Your task to perform on an android device: Open Reddit.com Image 0: 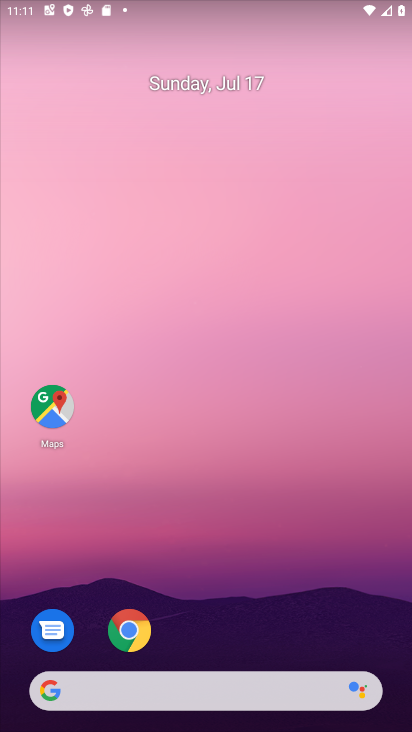
Step 0: click (149, 634)
Your task to perform on an android device: Open Reddit.com Image 1: 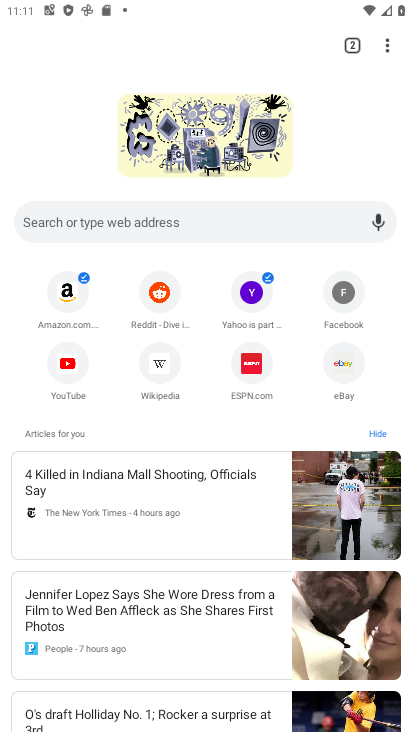
Step 1: click (102, 211)
Your task to perform on an android device: Open Reddit.com Image 2: 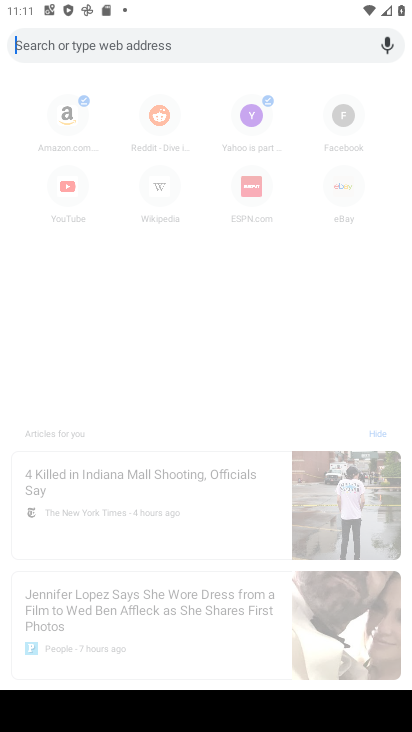
Step 2: type "reddit.com"
Your task to perform on an android device: Open Reddit.com Image 3: 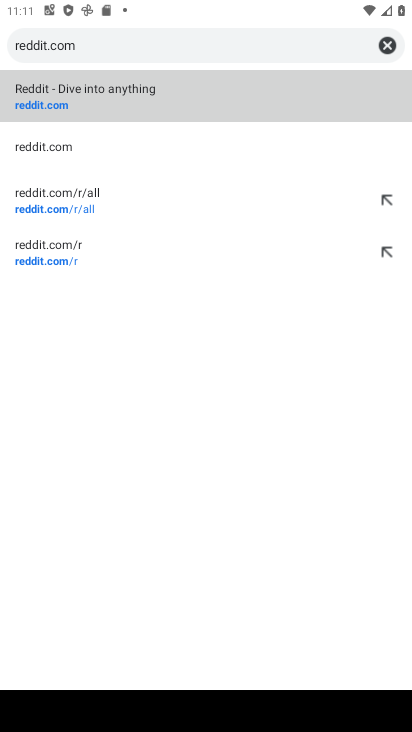
Step 3: click (117, 109)
Your task to perform on an android device: Open Reddit.com Image 4: 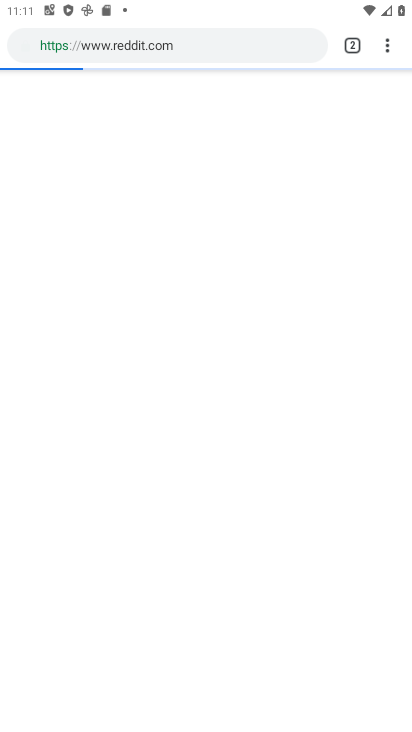
Step 4: task complete